Your task to perform on an android device: Go to Maps Image 0: 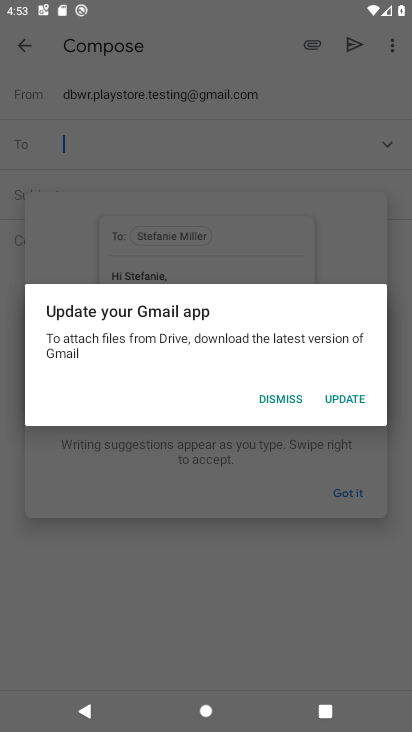
Step 0: click (290, 395)
Your task to perform on an android device: Go to Maps Image 1: 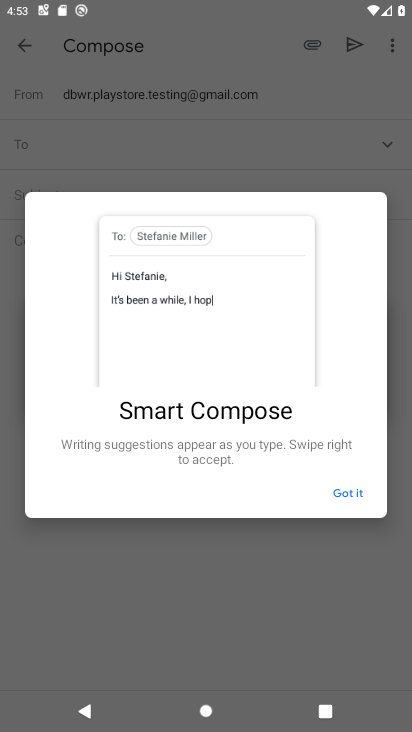
Step 1: press home button
Your task to perform on an android device: Go to Maps Image 2: 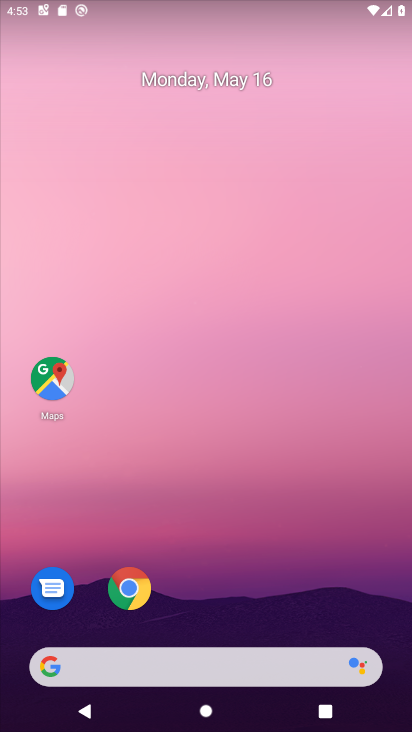
Step 2: click (53, 377)
Your task to perform on an android device: Go to Maps Image 3: 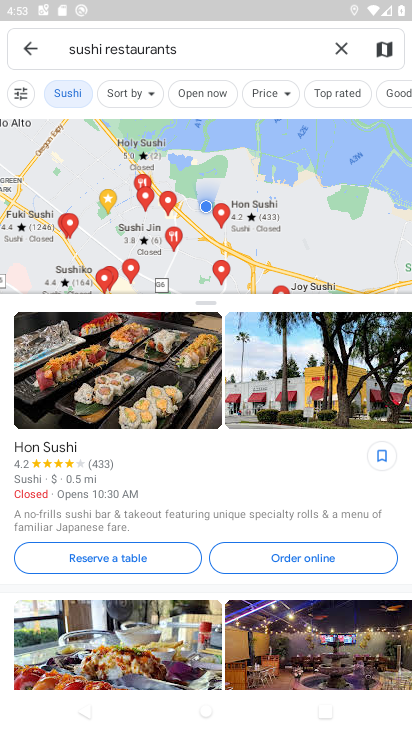
Step 3: task complete